Your task to perform on an android device: add a label to a message in the gmail app Image 0: 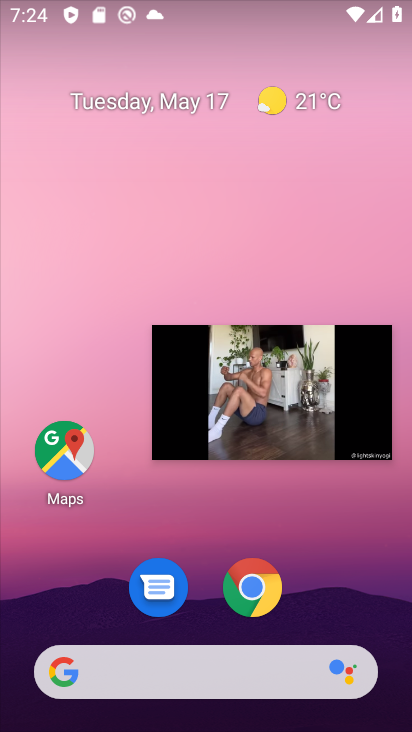
Step 0: drag from (352, 573) to (342, 92)
Your task to perform on an android device: add a label to a message in the gmail app Image 1: 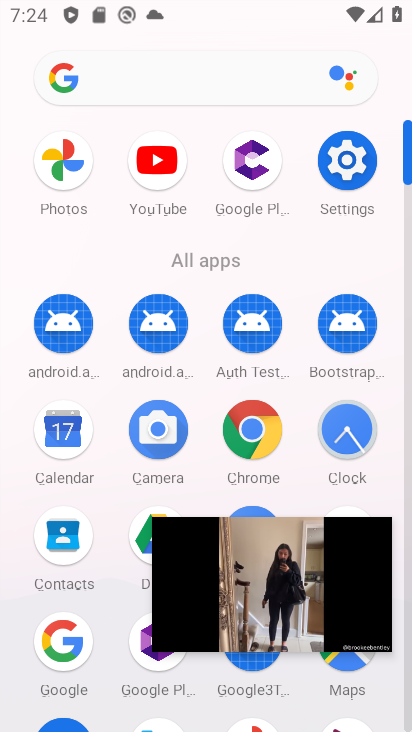
Step 1: drag from (387, 461) to (395, 249)
Your task to perform on an android device: add a label to a message in the gmail app Image 2: 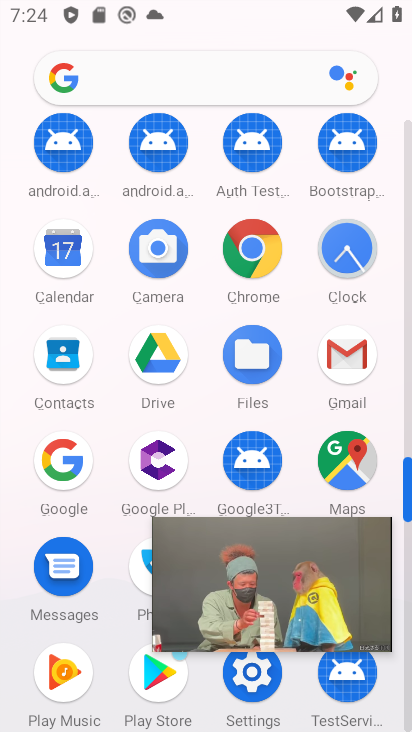
Step 2: click (361, 354)
Your task to perform on an android device: add a label to a message in the gmail app Image 3: 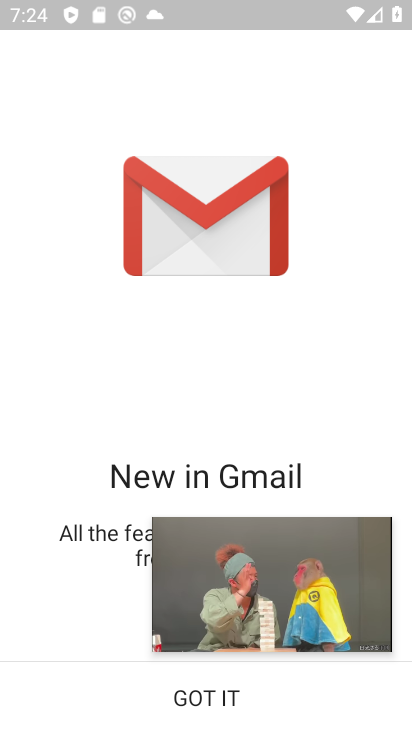
Step 3: click (258, 706)
Your task to perform on an android device: add a label to a message in the gmail app Image 4: 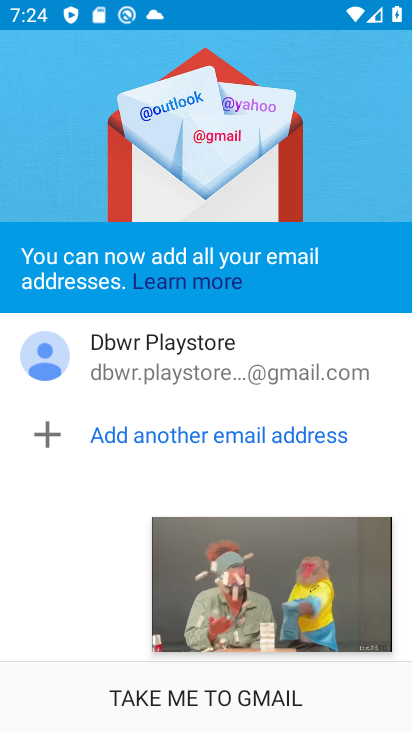
Step 4: click (258, 706)
Your task to perform on an android device: add a label to a message in the gmail app Image 5: 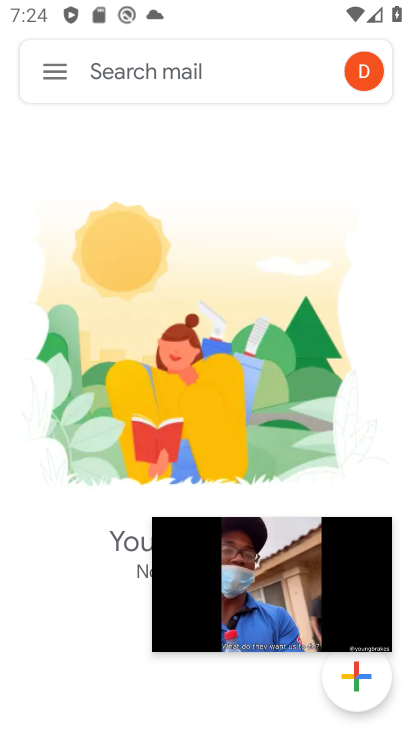
Step 5: click (64, 75)
Your task to perform on an android device: add a label to a message in the gmail app Image 6: 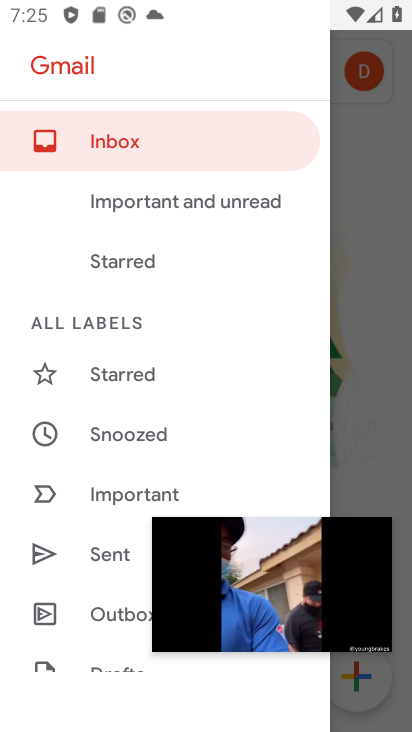
Step 6: drag from (262, 430) to (269, 272)
Your task to perform on an android device: add a label to a message in the gmail app Image 7: 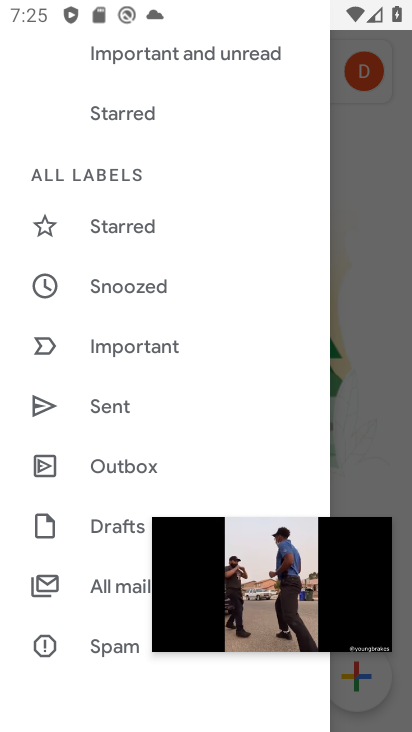
Step 7: drag from (265, 433) to (265, 293)
Your task to perform on an android device: add a label to a message in the gmail app Image 8: 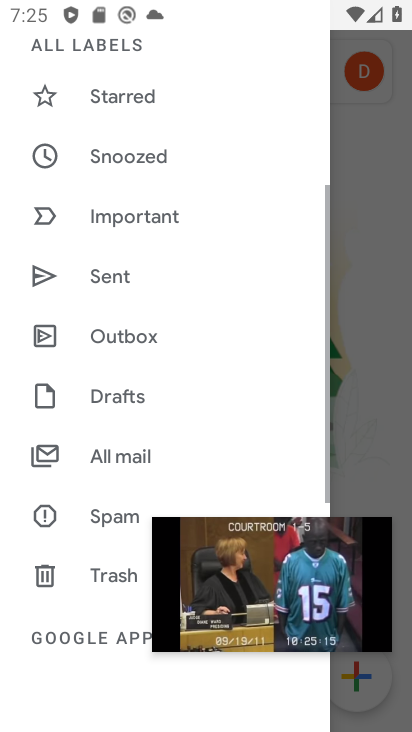
Step 8: drag from (251, 439) to (259, 290)
Your task to perform on an android device: add a label to a message in the gmail app Image 9: 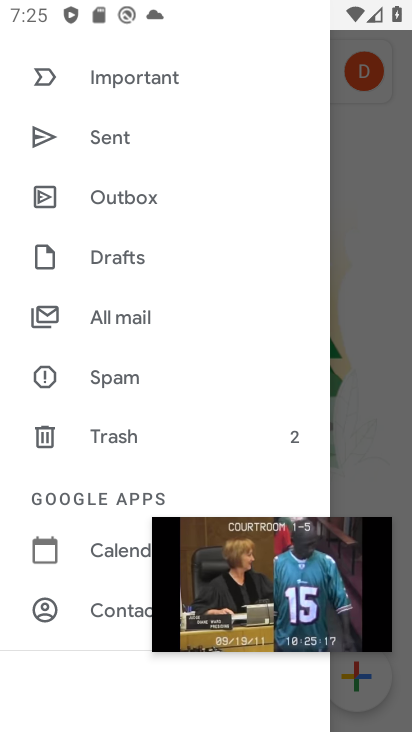
Step 9: drag from (235, 449) to (242, 272)
Your task to perform on an android device: add a label to a message in the gmail app Image 10: 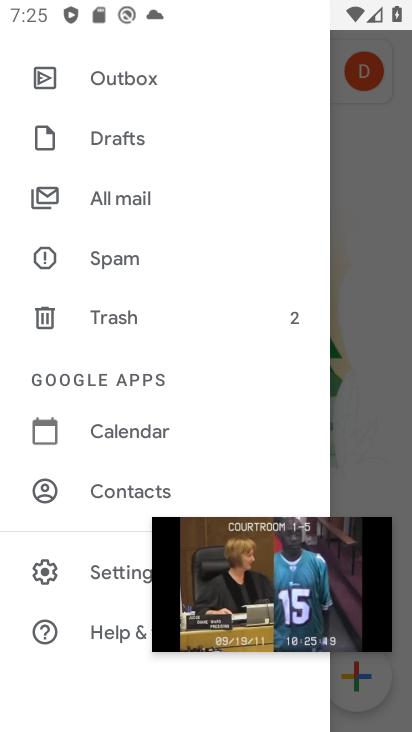
Step 10: drag from (240, 462) to (237, 283)
Your task to perform on an android device: add a label to a message in the gmail app Image 11: 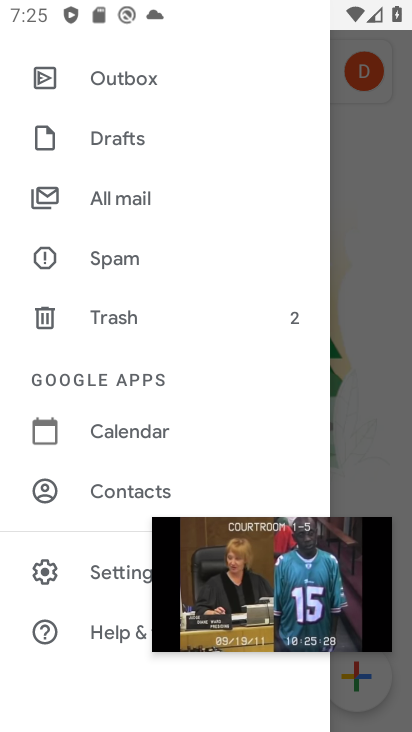
Step 11: drag from (240, 182) to (247, 346)
Your task to perform on an android device: add a label to a message in the gmail app Image 12: 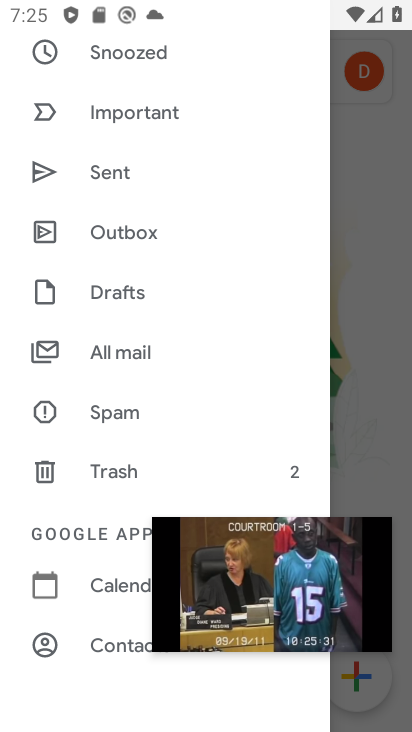
Step 12: drag from (259, 163) to (246, 302)
Your task to perform on an android device: add a label to a message in the gmail app Image 13: 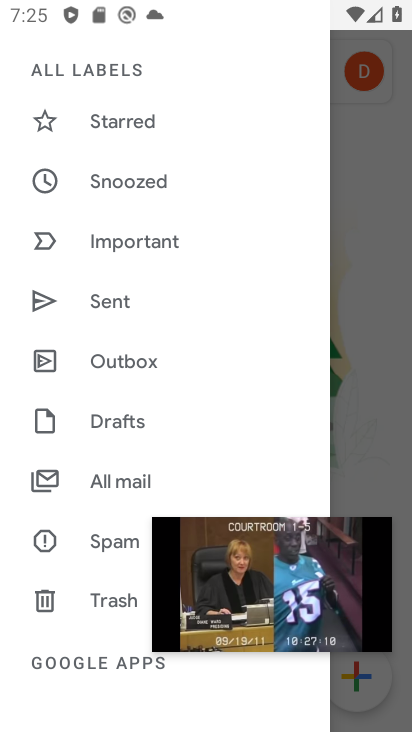
Step 13: drag from (254, 167) to (260, 322)
Your task to perform on an android device: add a label to a message in the gmail app Image 14: 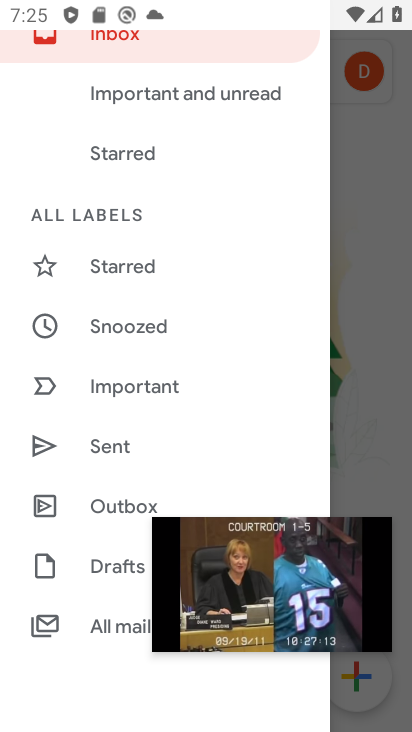
Step 14: drag from (266, 167) to (257, 290)
Your task to perform on an android device: add a label to a message in the gmail app Image 15: 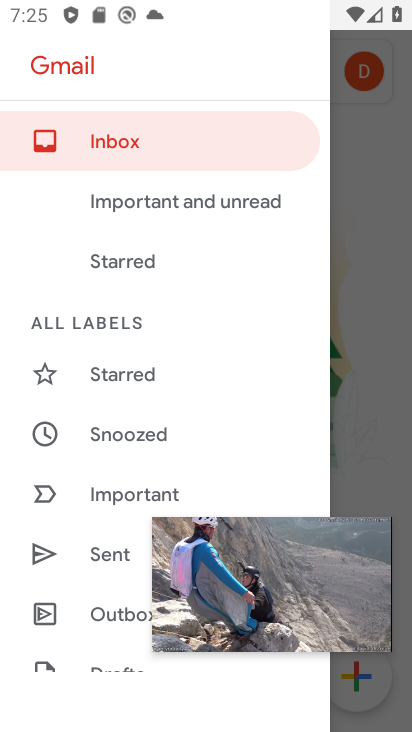
Step 15: drag from (269, 115) to (253, 312)
Your task to perform on an android device: add a label to a message in the gmail app Image 16: 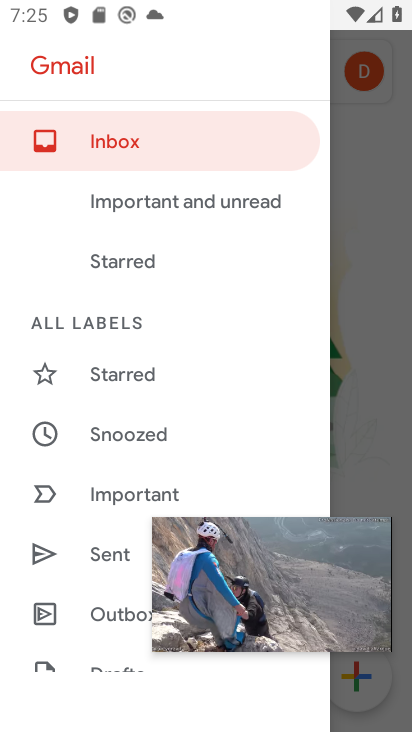
Step 16: click (130, 142)
Your task to perform on an android device: add a label to a message in the gmail app Image 17: 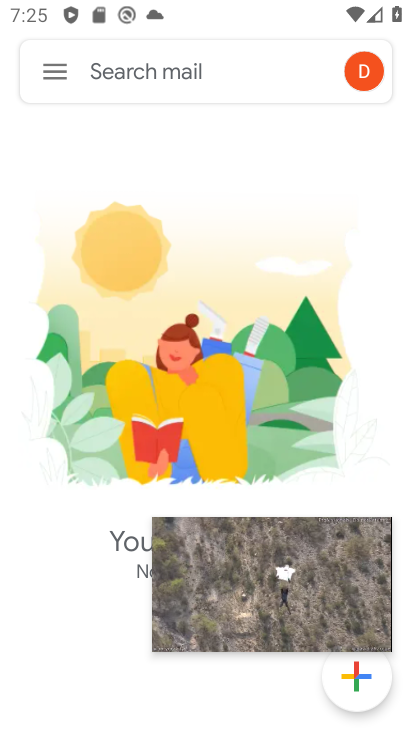
Step 17: task complete